Your task to perform on an android device: Play the last video I watched on Youtube Image 0: 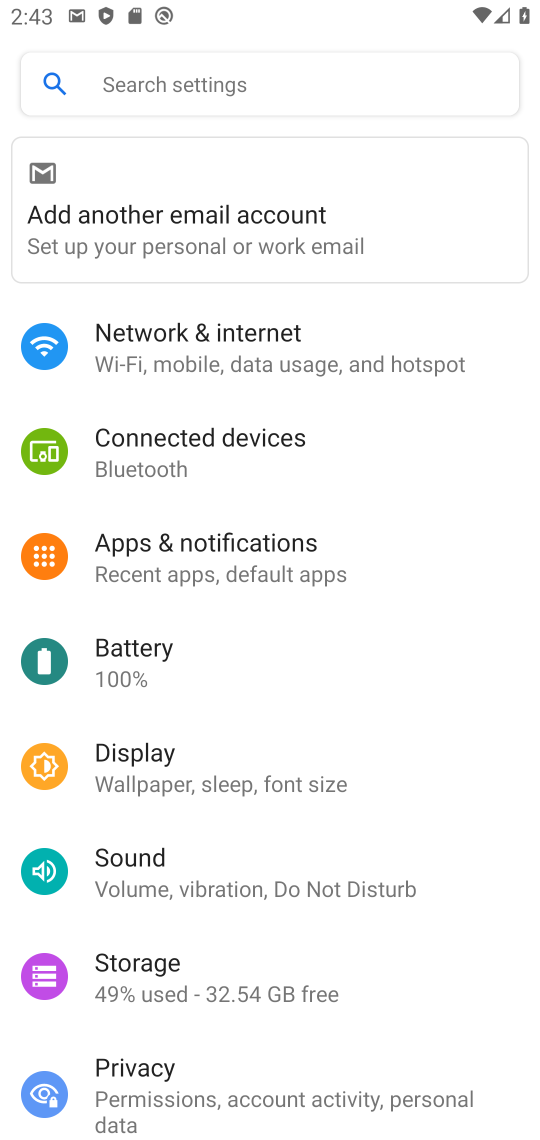
Step 0: press home button
Your task to perform on an android device: Play the last video I watched on Youtube Image 1: 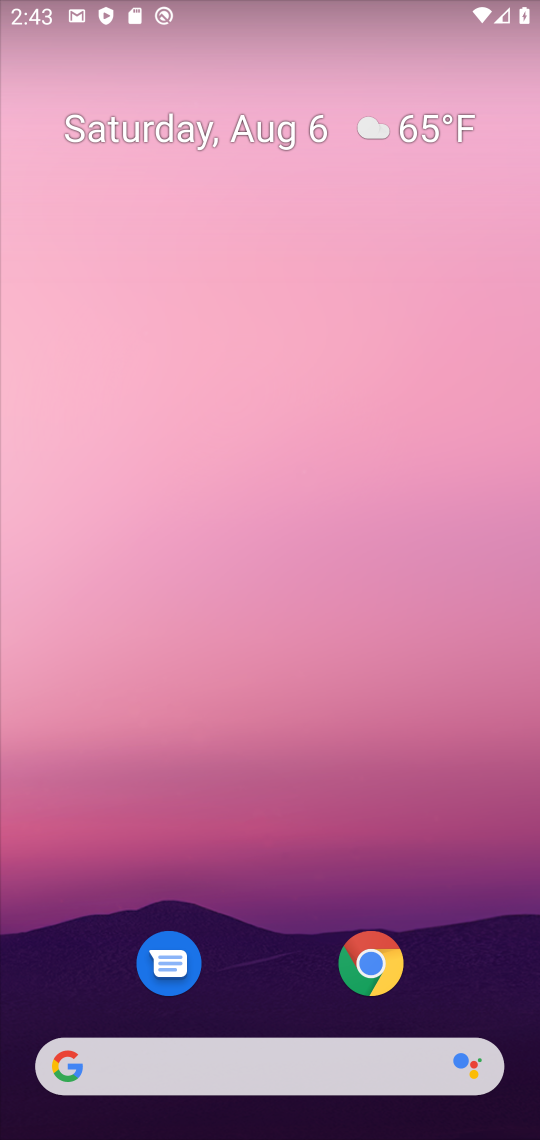
Step 1: drag from (251, 1025) to (173, 219)
Your task to perform on an android device: Play the last video I watched on Youtube Image 2: 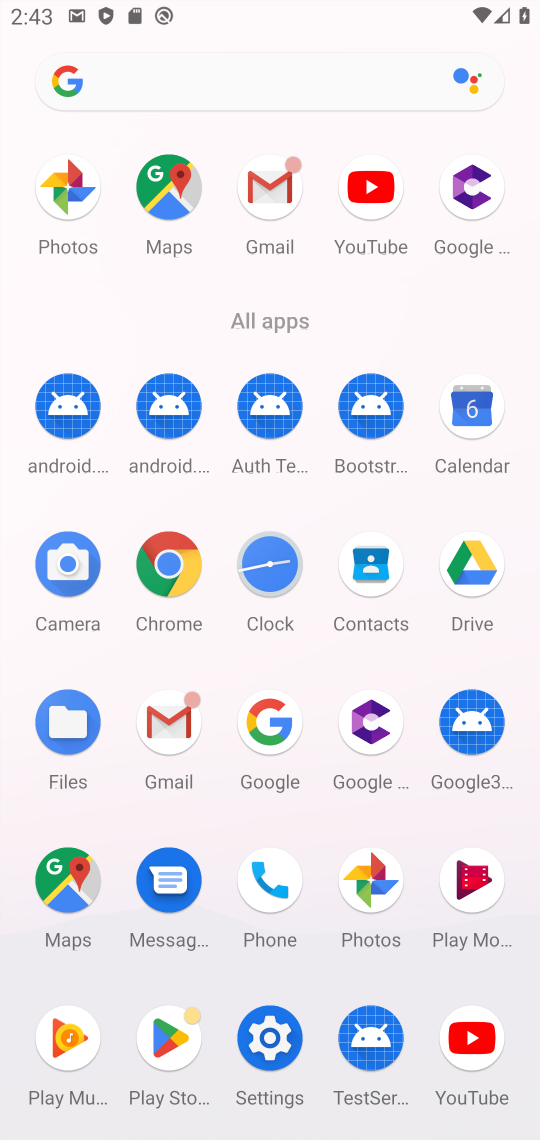
Step 2: click (483, 1032)
Your task to perform on an android device: Play the last video I watched on Youtube Image 3: 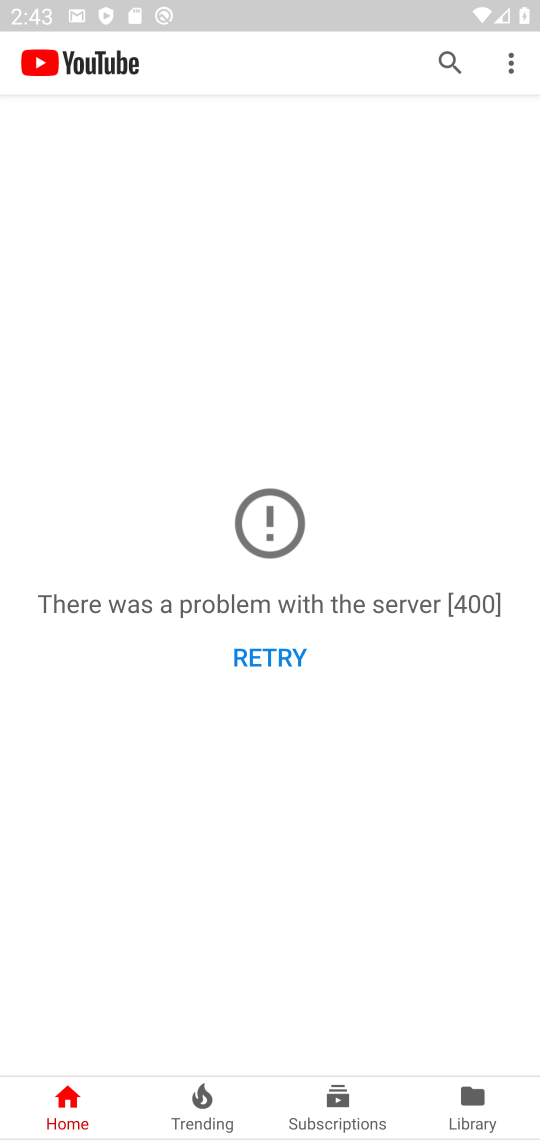
Step 3: click (278, 639)
Your task to perform on an android device: Play the last video I watched on Youtube Image 4: 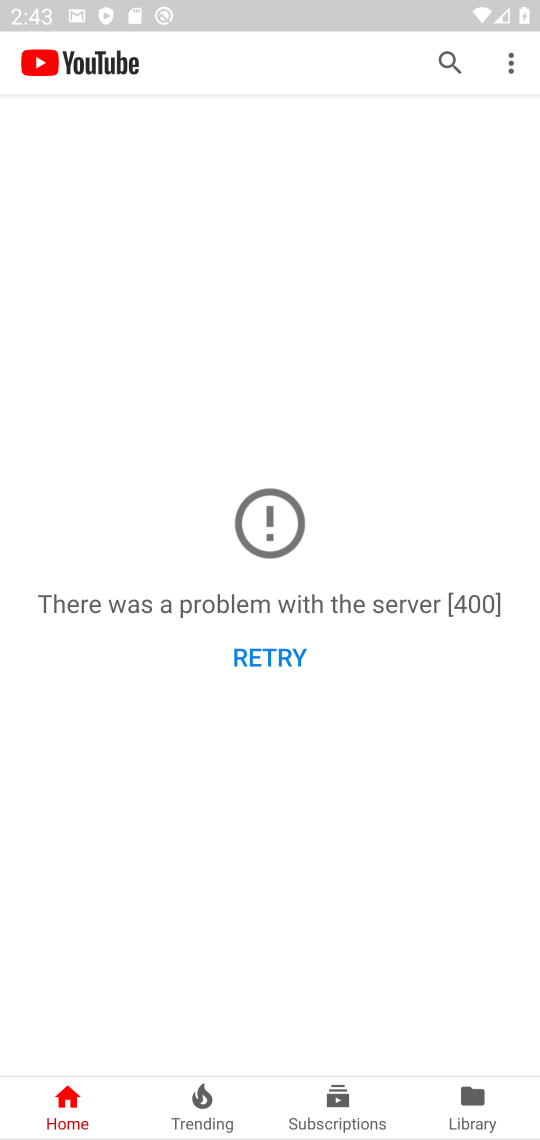
Step 4: click (488, 1113)
Your task to perform on an android device: Play the last video I watched on Youtube Image 5: 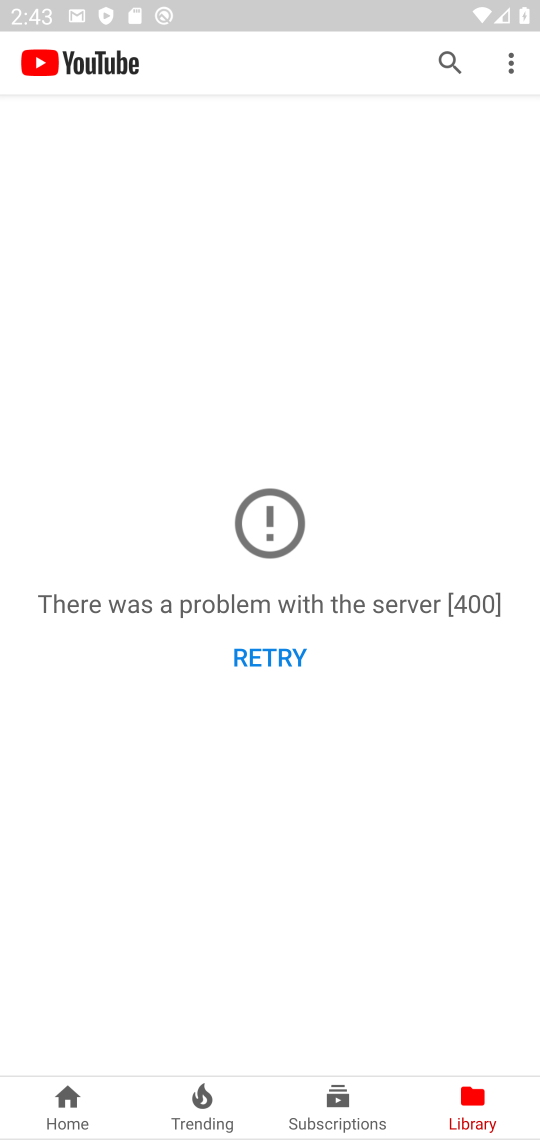
Step 5: task complete